Your task to perform on an android device: Go to calendar. Show me events next week Image 0: 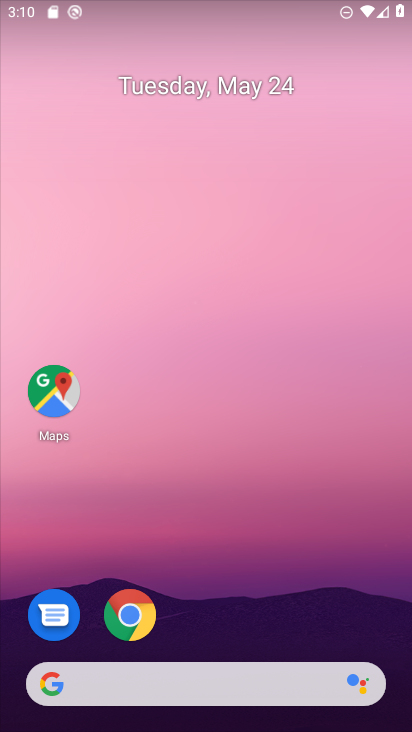
Step 0: drag from (177, 665) to (275, 244)
Your task to perform on an android device: Go to calendar. Show me events next week Image 1: 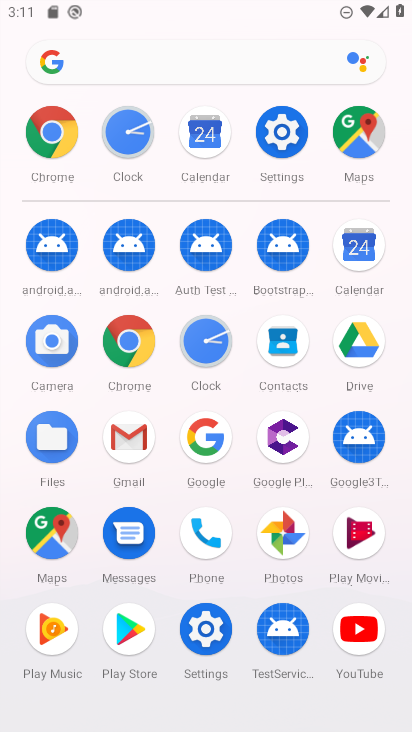
Step 1: click (362, 252)
Your task to perform on an android device: Go to calendar. Show me events next week Image 2: 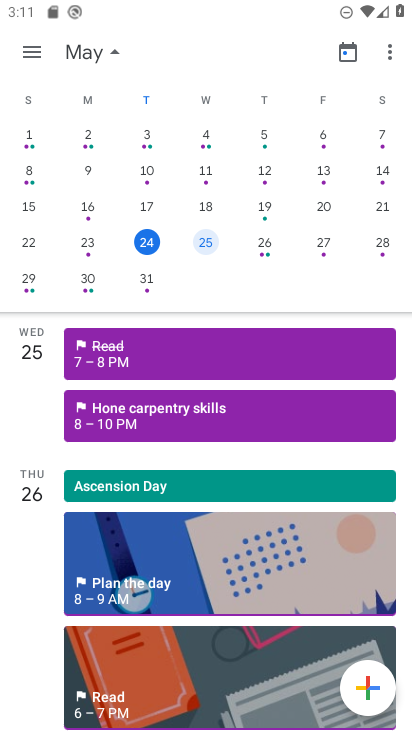
Step 2: click (24, 284)
Your task to perform on an android device: Go to calendar. Show me events next week Image 3: 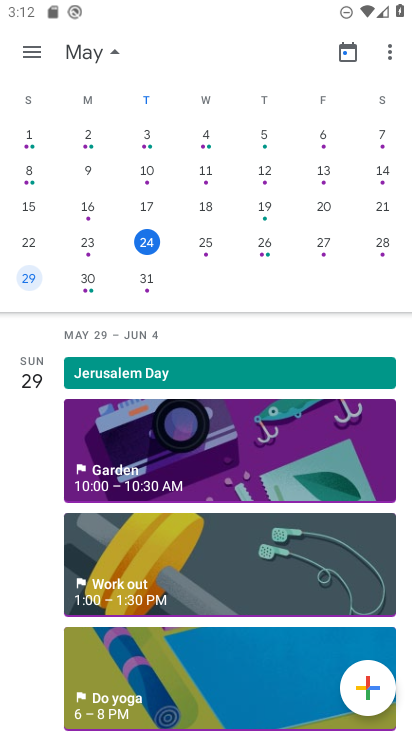
Step 3: click (31, 279)
Your task to perform on an android device: Go to calendar. Show me events next week Image 4: 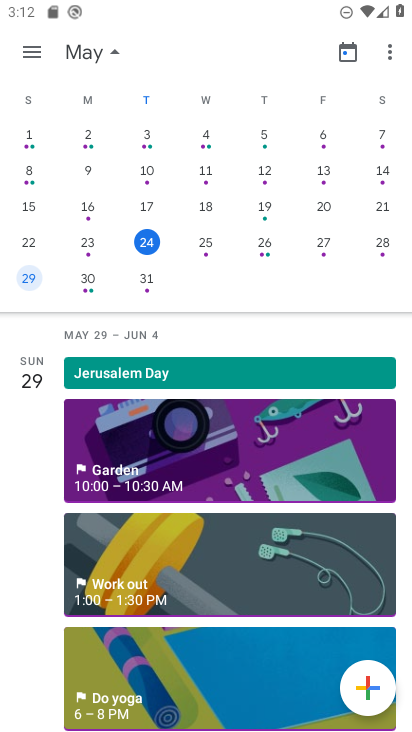
Step 4: task complete